Your task to perform on an android device: Open Maps and search for coffee Image 0: 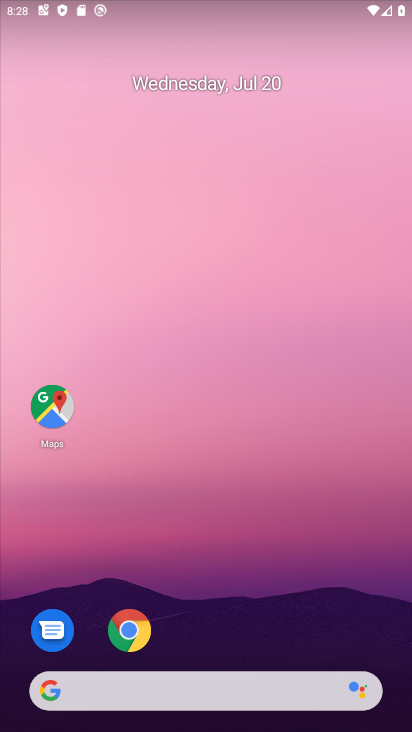
Step 0: click (45, 391)
Your task to perform on an android device: Open Maps and search for coffee Image 1: 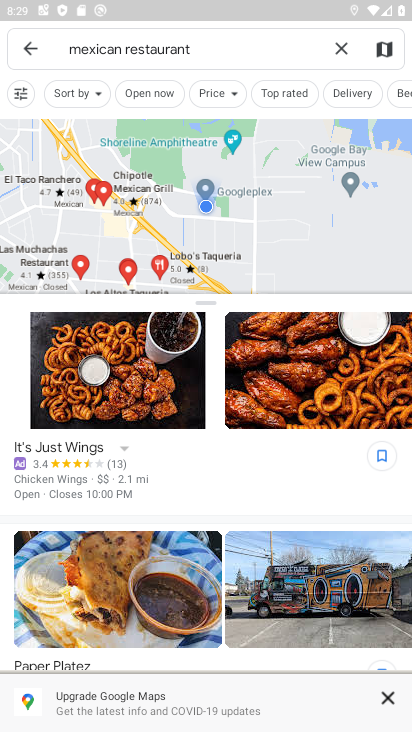
Step 1: click (337, 42)
Your task to perform on an android device: Open Maps and search for coffee Image 2: 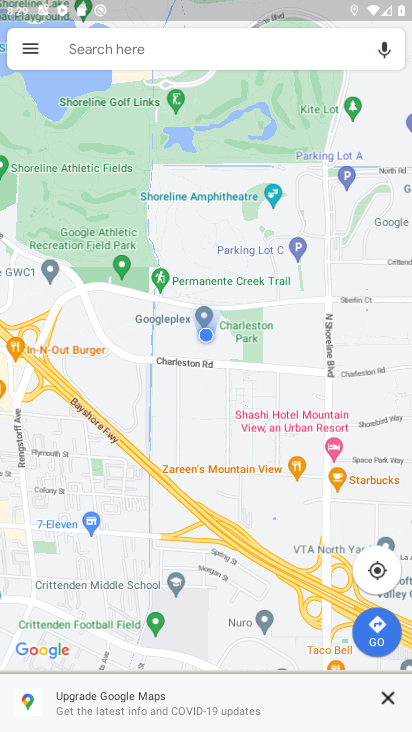
Step 2: click (129, 49)
Your task to perform on an android device: Open Maps and search for coffee Image 3: 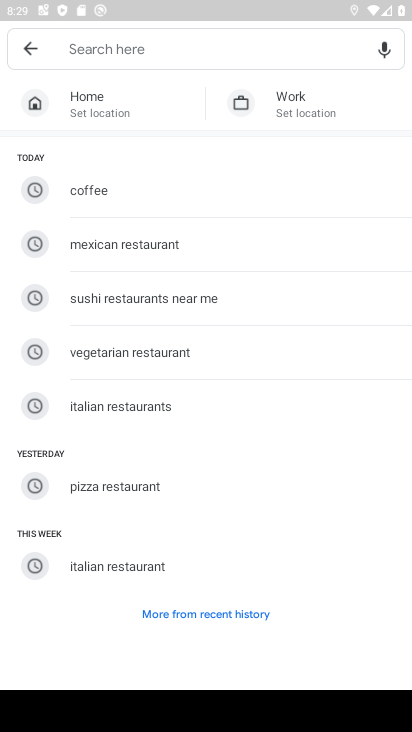
Step 3: type "coffee"
Your task to perform on an android device: Open Maps and search for coffee Image 4: 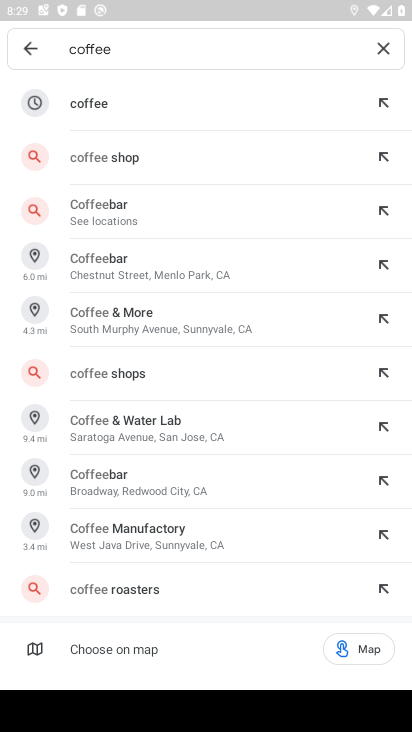
Step 4: click (74, 155)
Your task to perform on an android device: Open Maps and search for coffee Image 5: 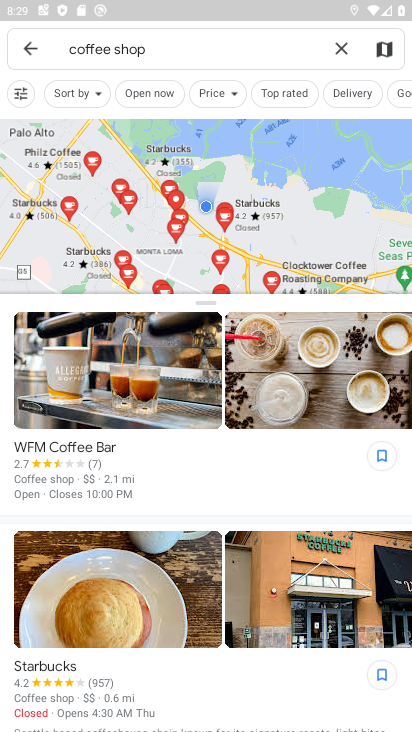
Step 5: task complete